Your task to perform on an android device: turn off sleep mode Image 0: 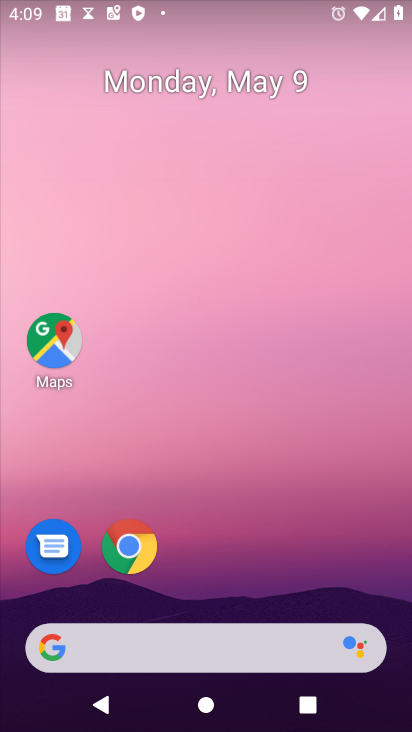
Step 0: drag from (259, 528) to (201, 89)
Your task to perform on an android device: turn off sleep mode Image 1: 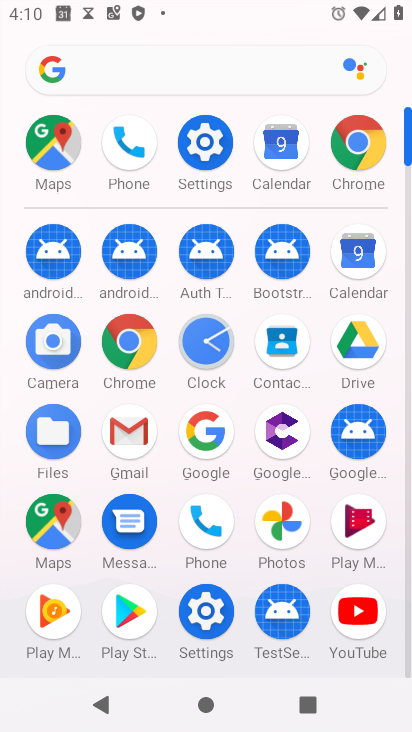
Step 1: click (208, 168)
Your task to perform on an android device: turn off sleep mode Image 2: 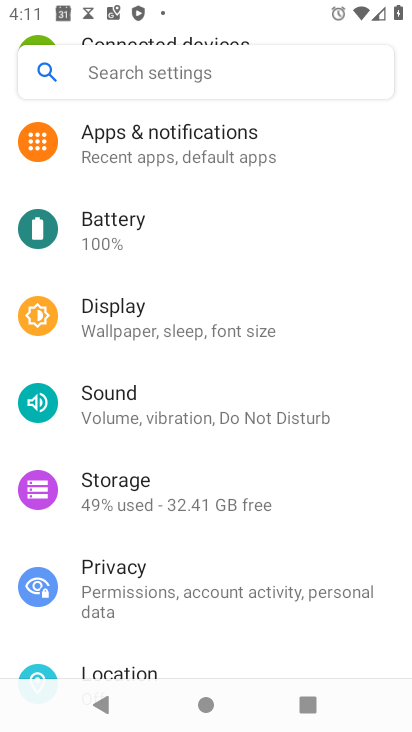
Step 2: click (168, 316)
Your task to perform on an android device: turn off sleep mode Image 3: 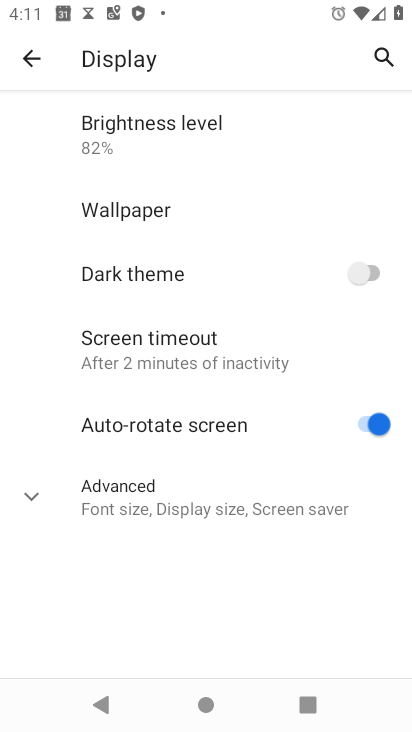
Step 3: click (147, 350)
Your task to perform on an android device: turn off sleep mode Image 4: 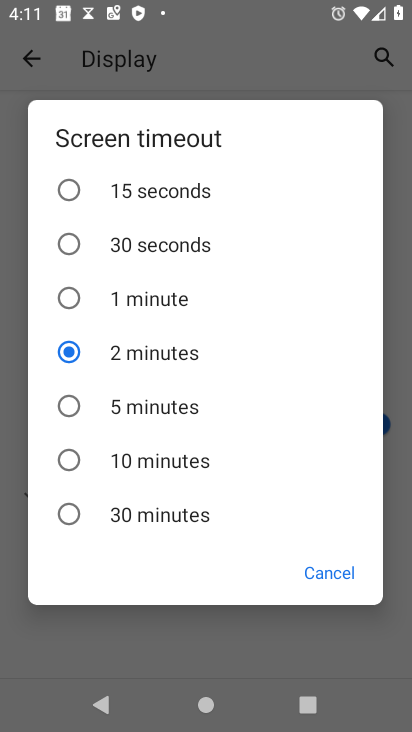
Step 4: task complete